Your task to perform on an android device: Do I have any events today? Image 0: 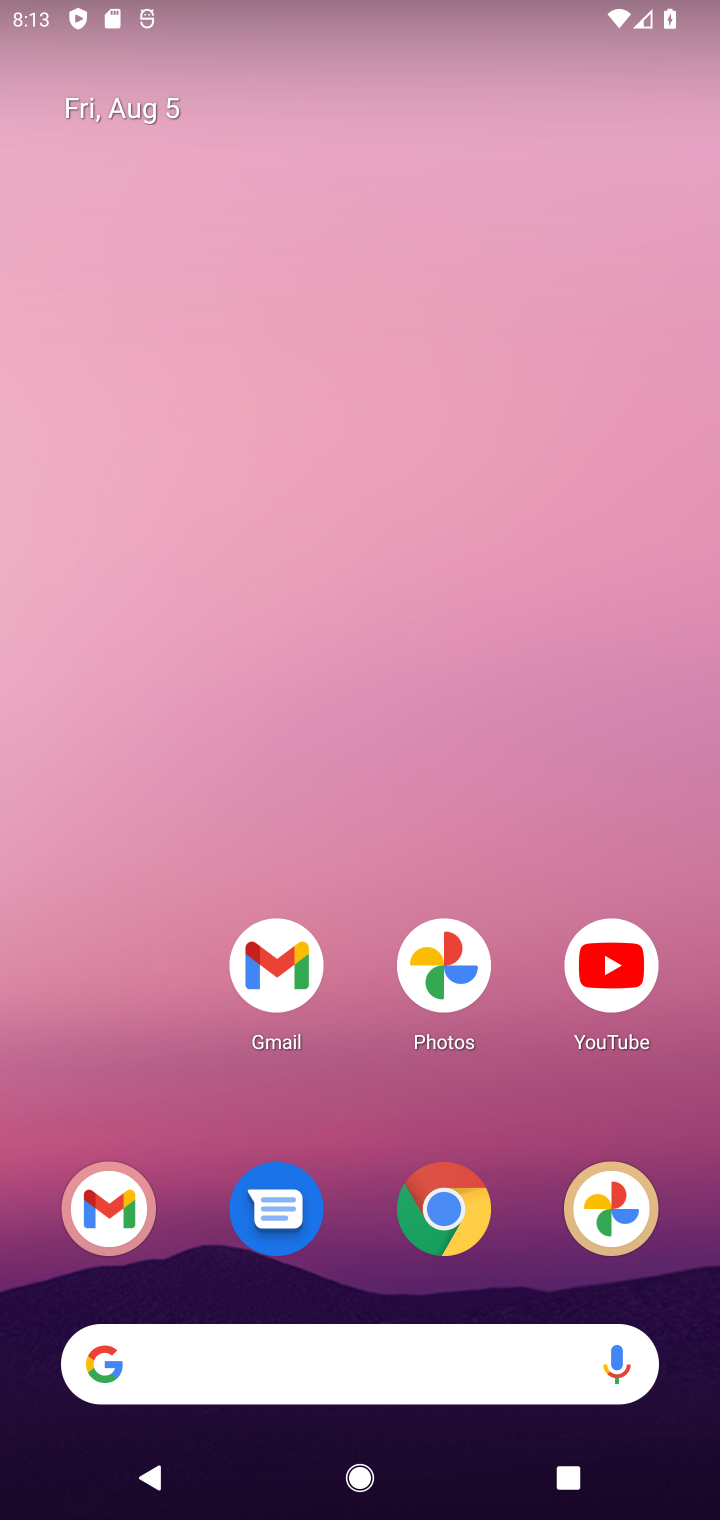
Step 0: drag from (297, 1247) to (587, 270)
Your task to perform on an android device: Do I have any events today? Image 1: 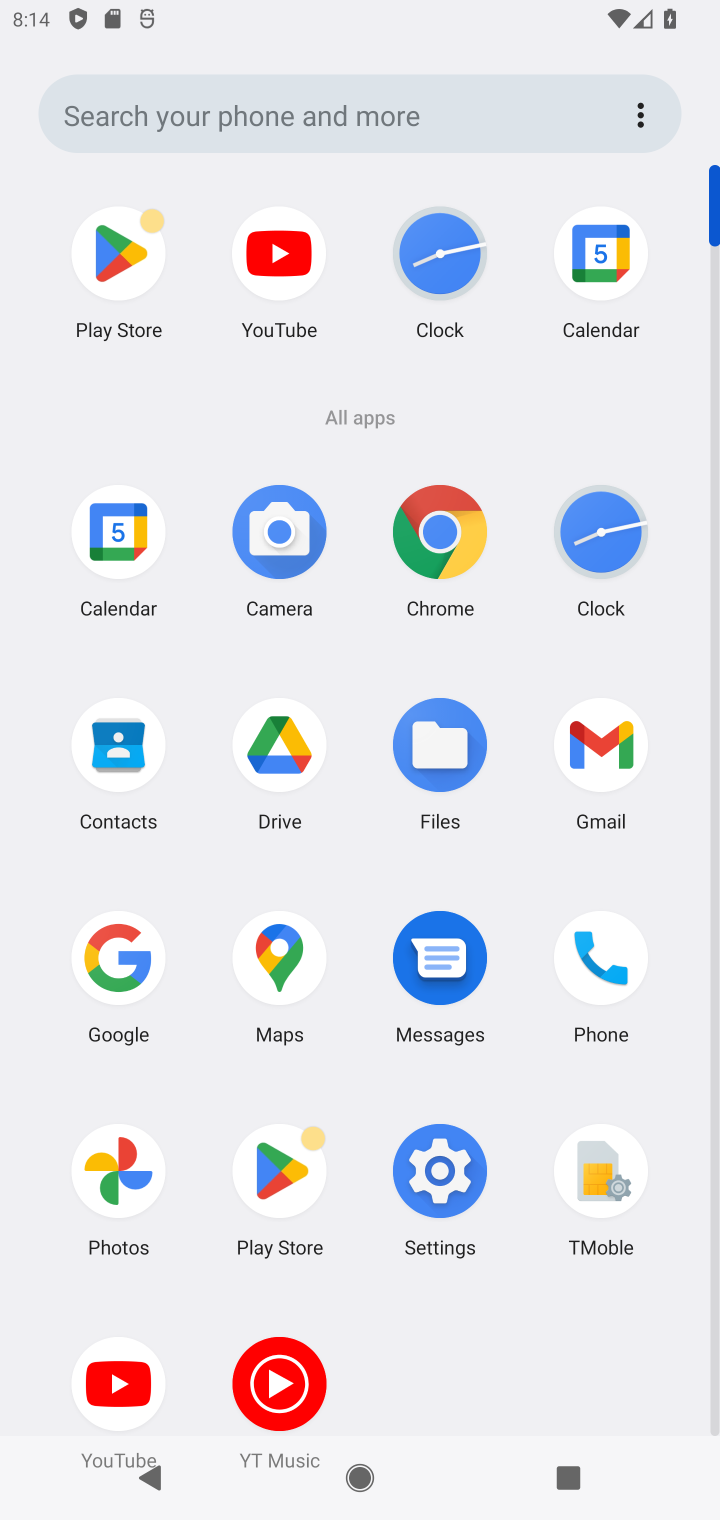
Step 1: click (611, 247)
Your task to perform on an android device: Do I have any events today? Image 2: 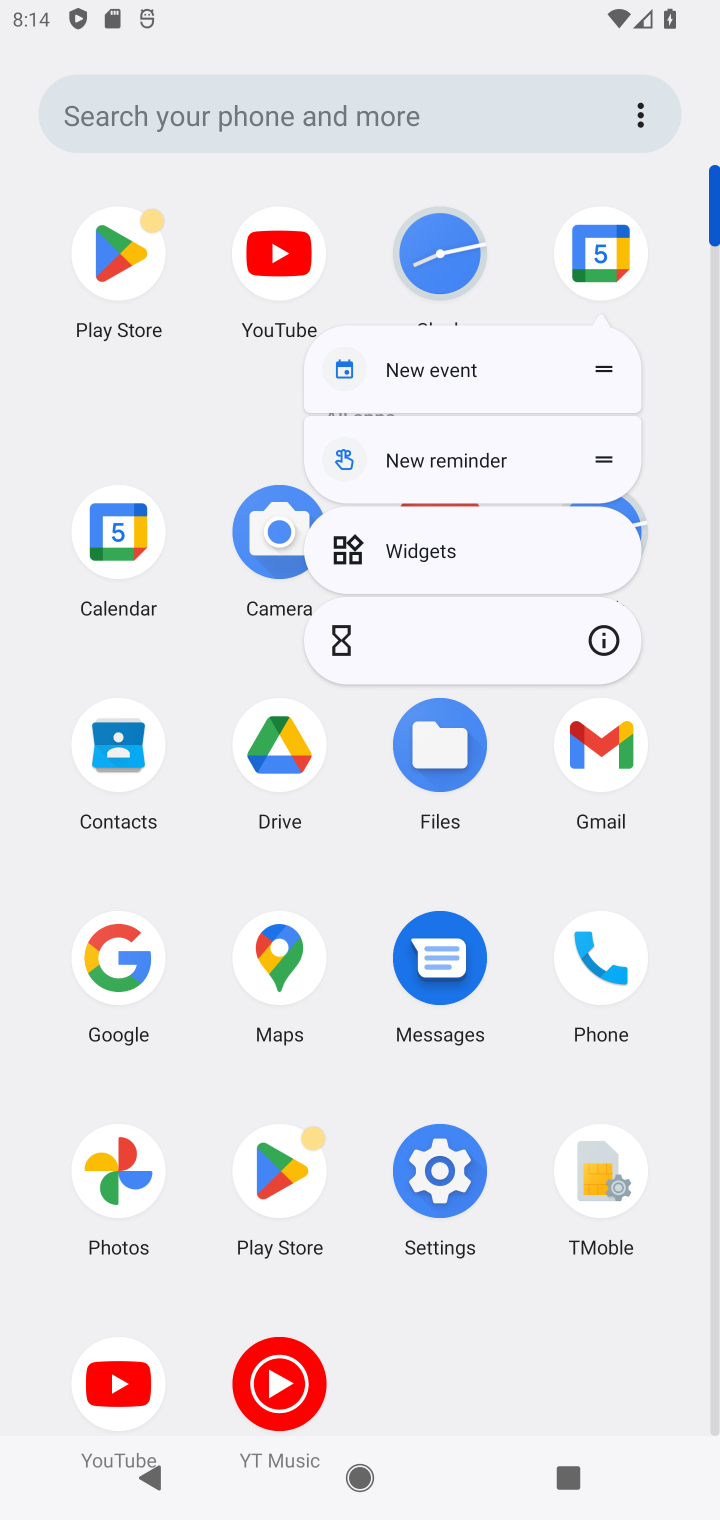
Step 2: click (611, 247)
Your task to perform on an android device: Do I have any events today? Image 3: 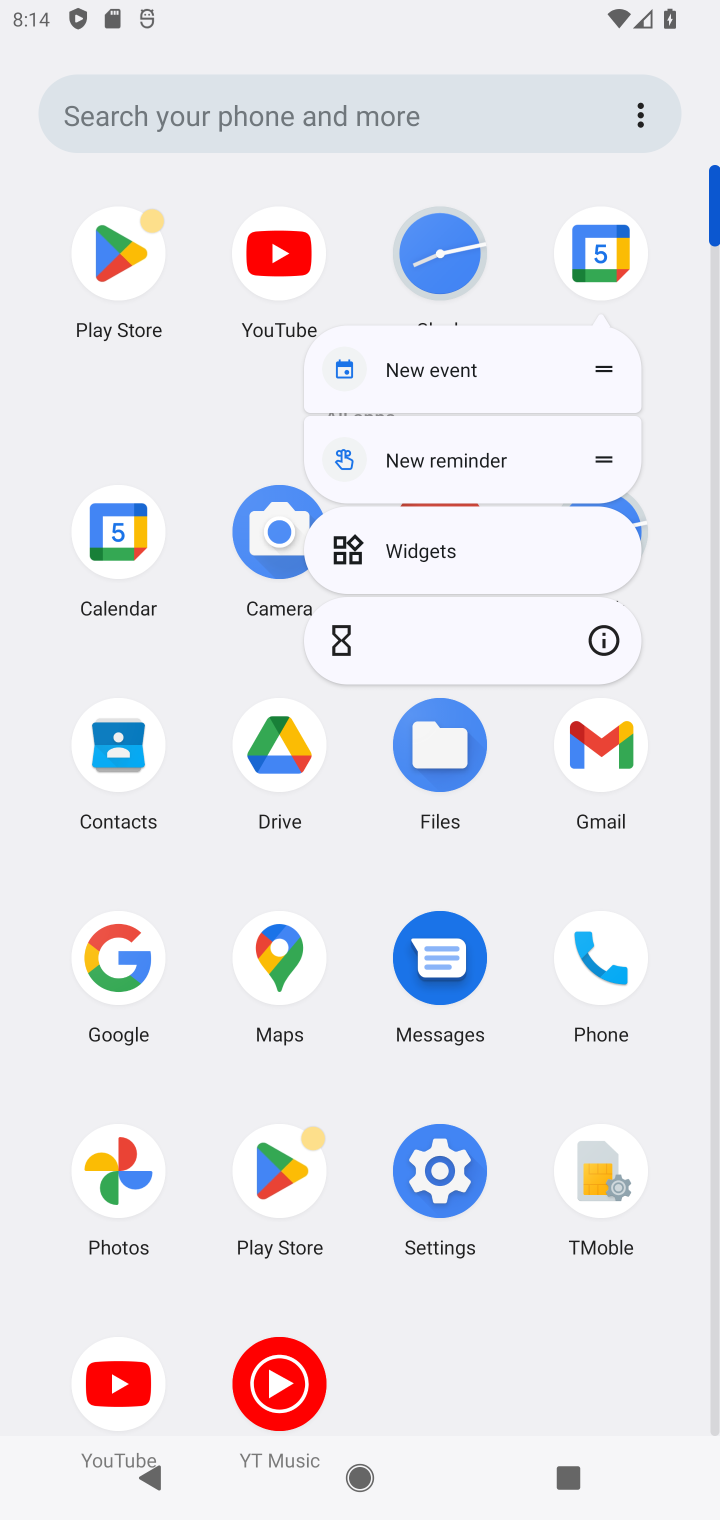
Step 3: click (594, 258)
Your task to perform on an android device: Do I have any events today? Image 4: 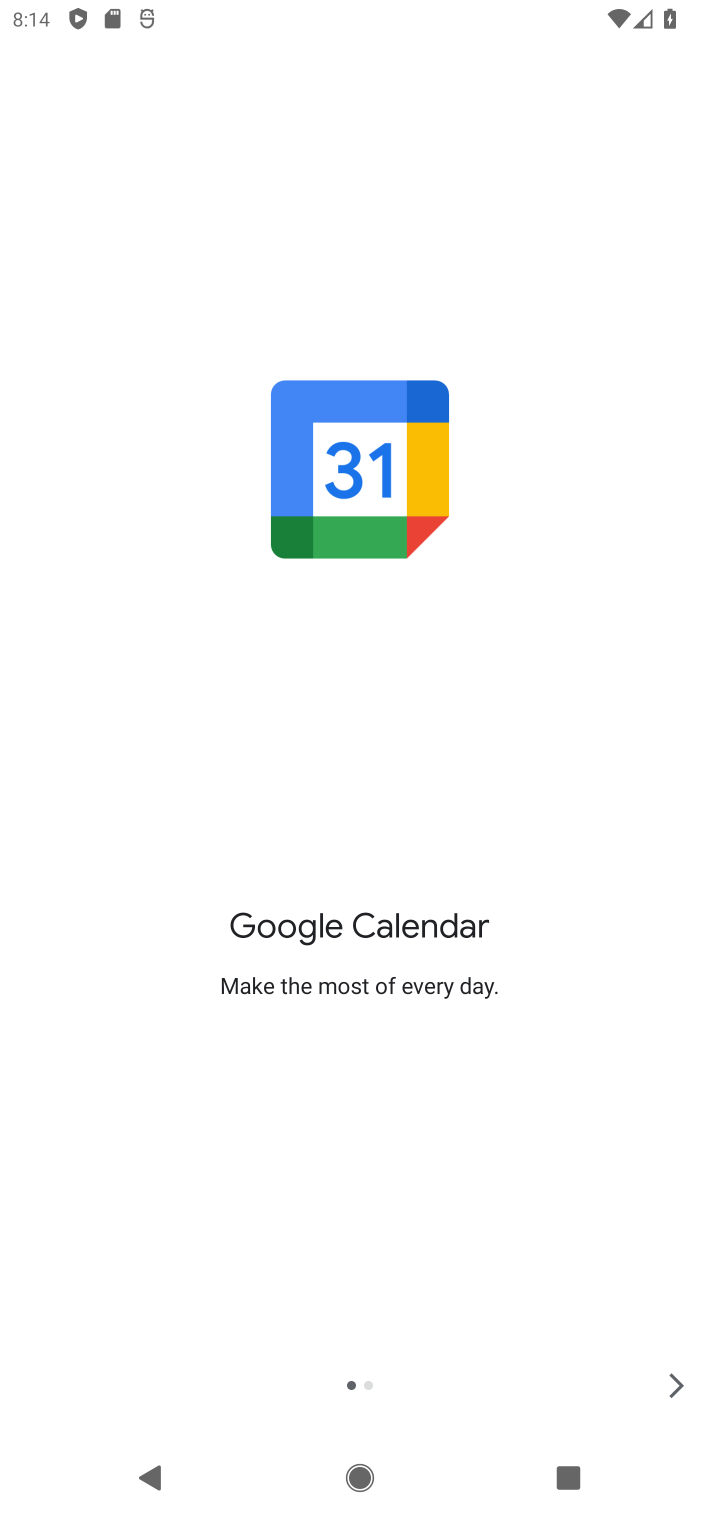
Step 4: click (678, 1388)
Your task to perform on an android device: Do I have any events today? Image 5: 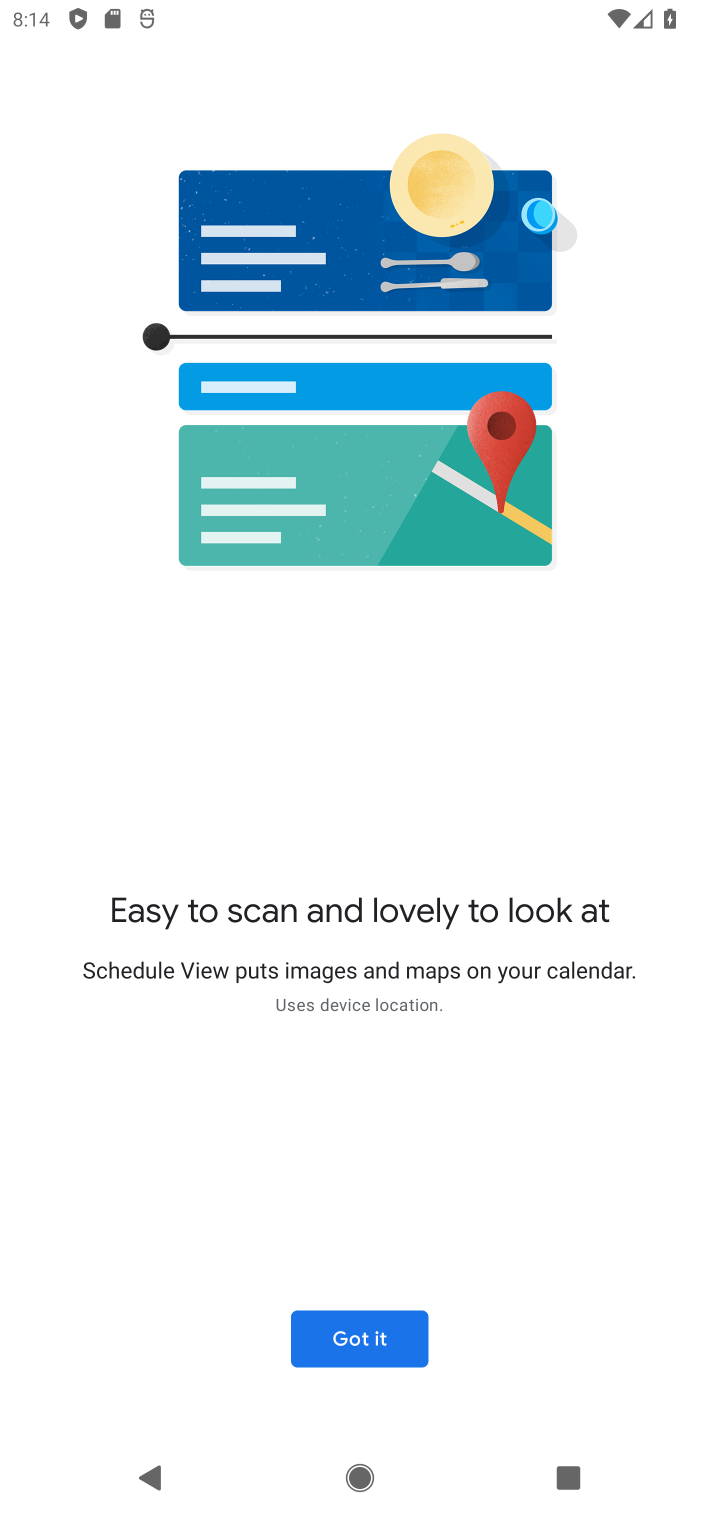
Step 5: click (678, 1388)
Your task to perform on an android device: Do I have any events today? Image 6: 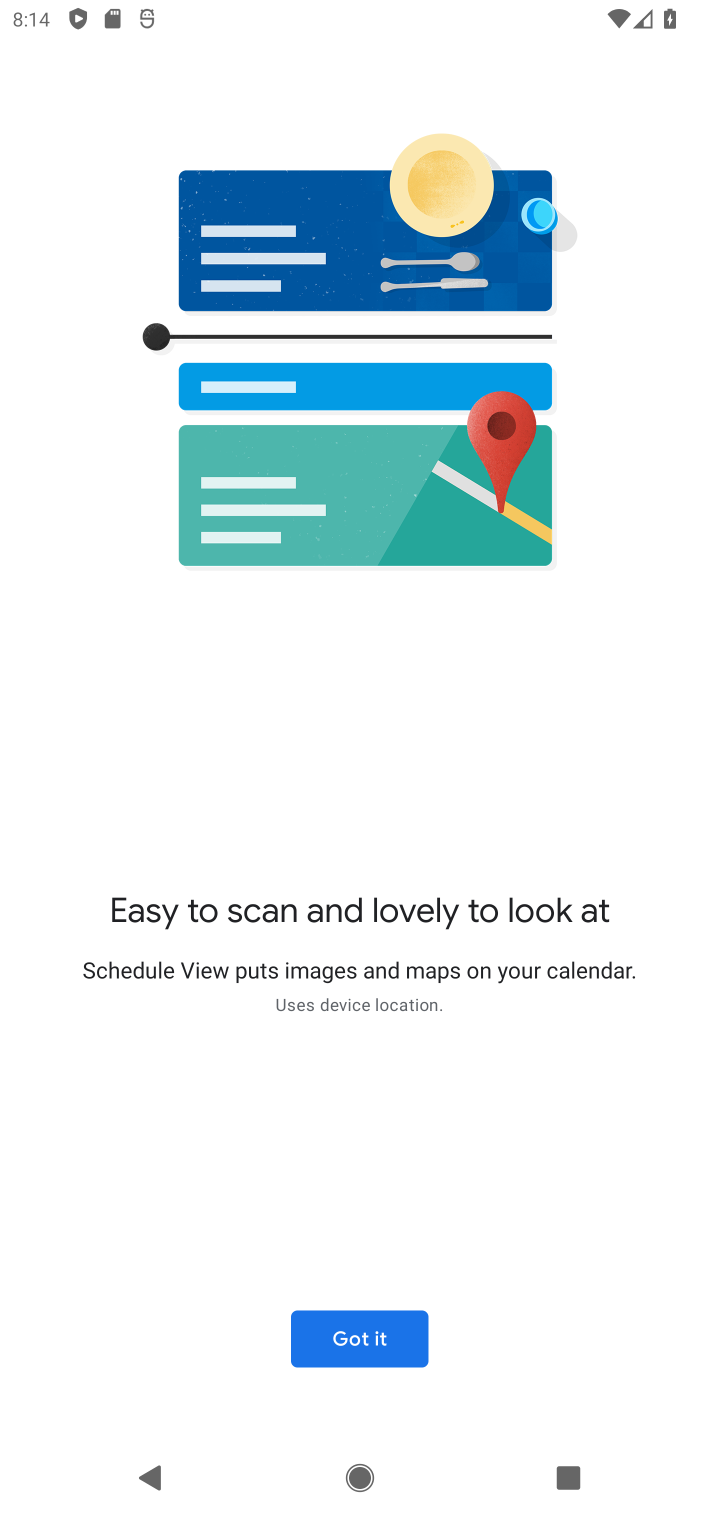
Step 6: click (402, 1341)
Your task to perform on an android device: Do I have any events today? Image 7: 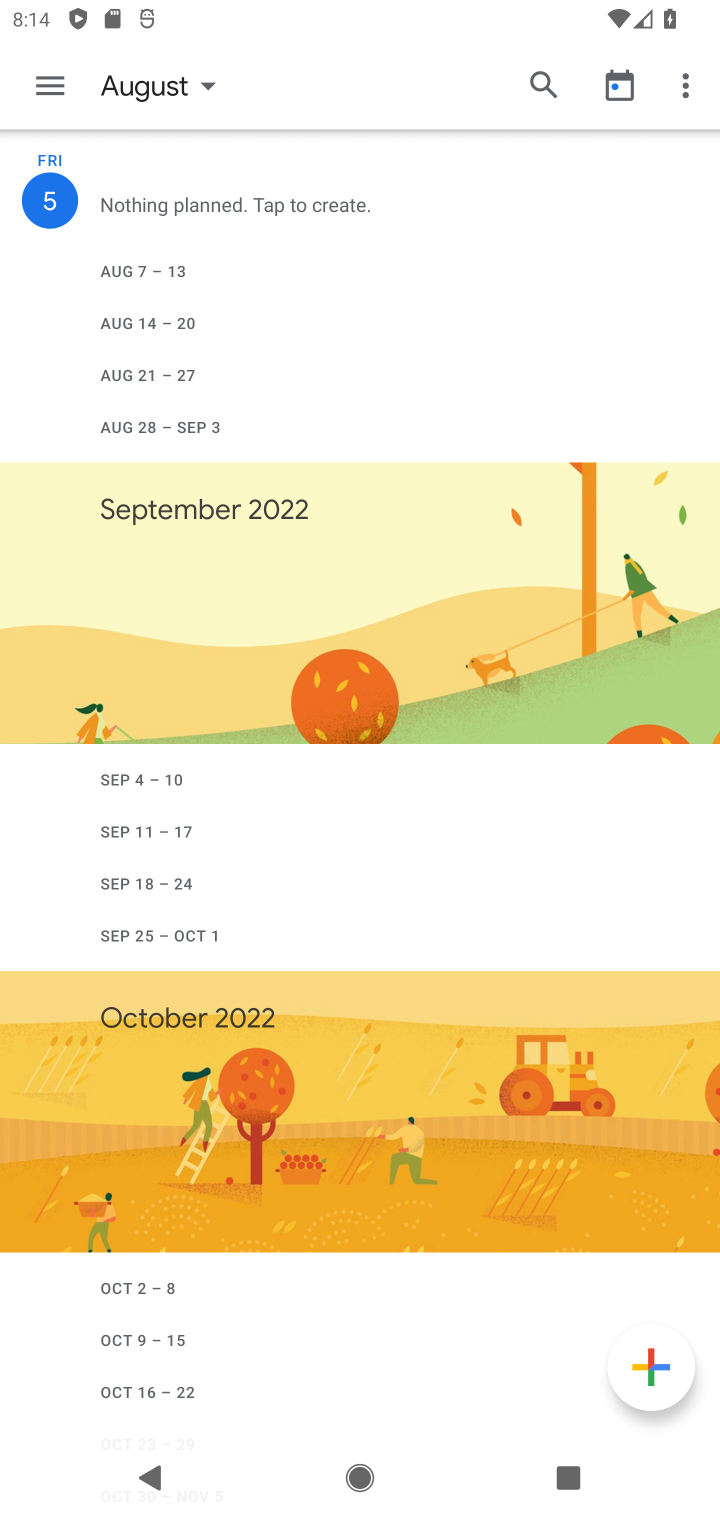
Step 7: click (140, 98)
Your task to perform on an android device: Do I have any events today? Image 8: 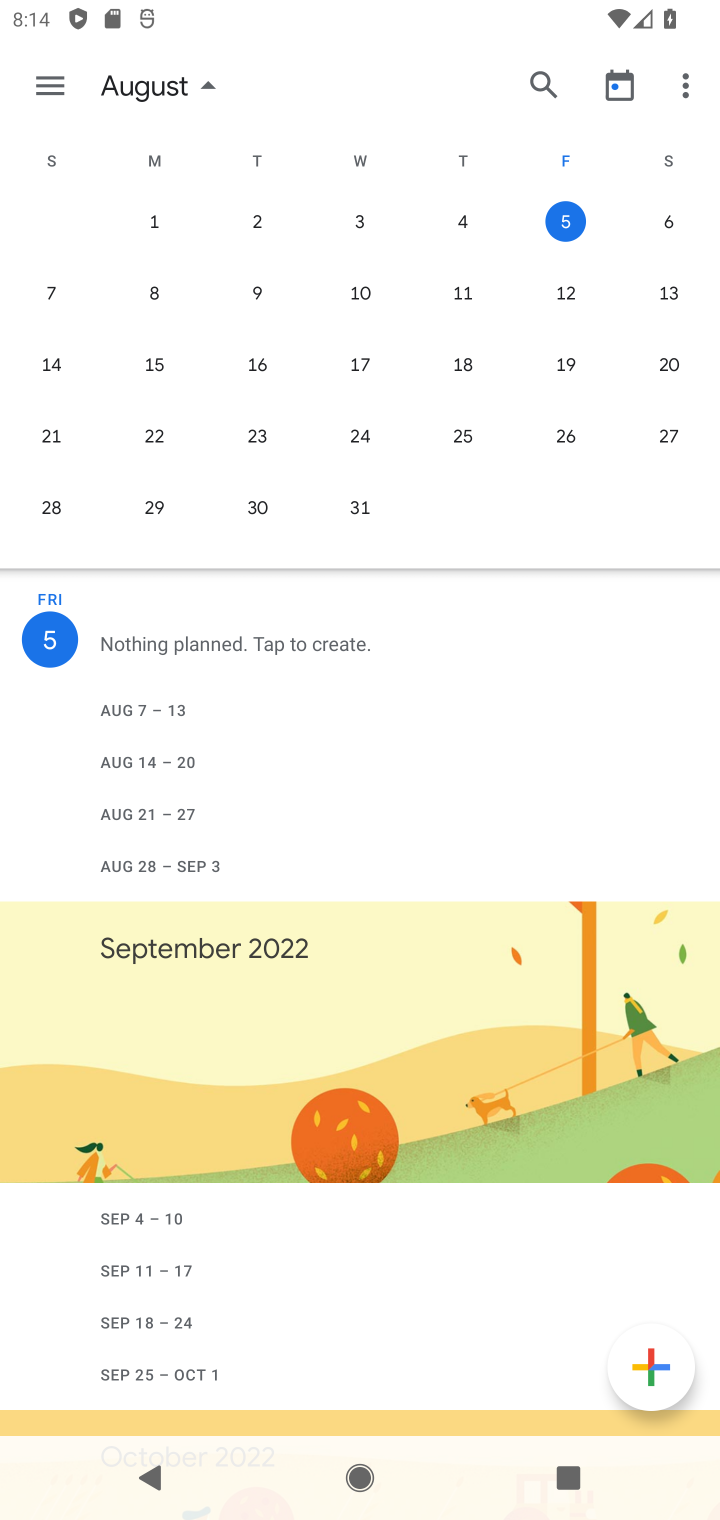
Step 8: click (559, 216)
Your task to perform on an android device: Do I have any events today? Image 9: 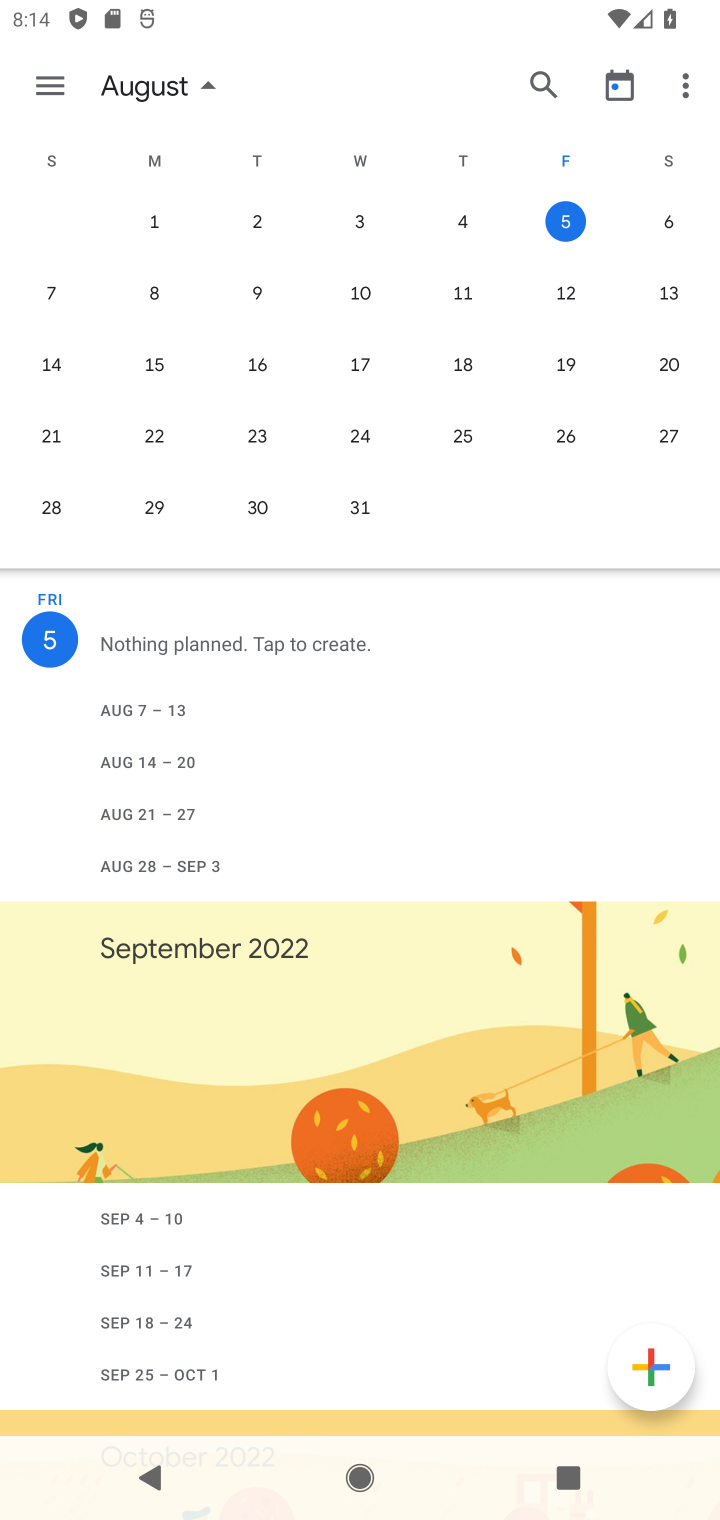
Step 9: click (48, 86)
Your task to perform on an android device: Do I have any events today? Image 10: 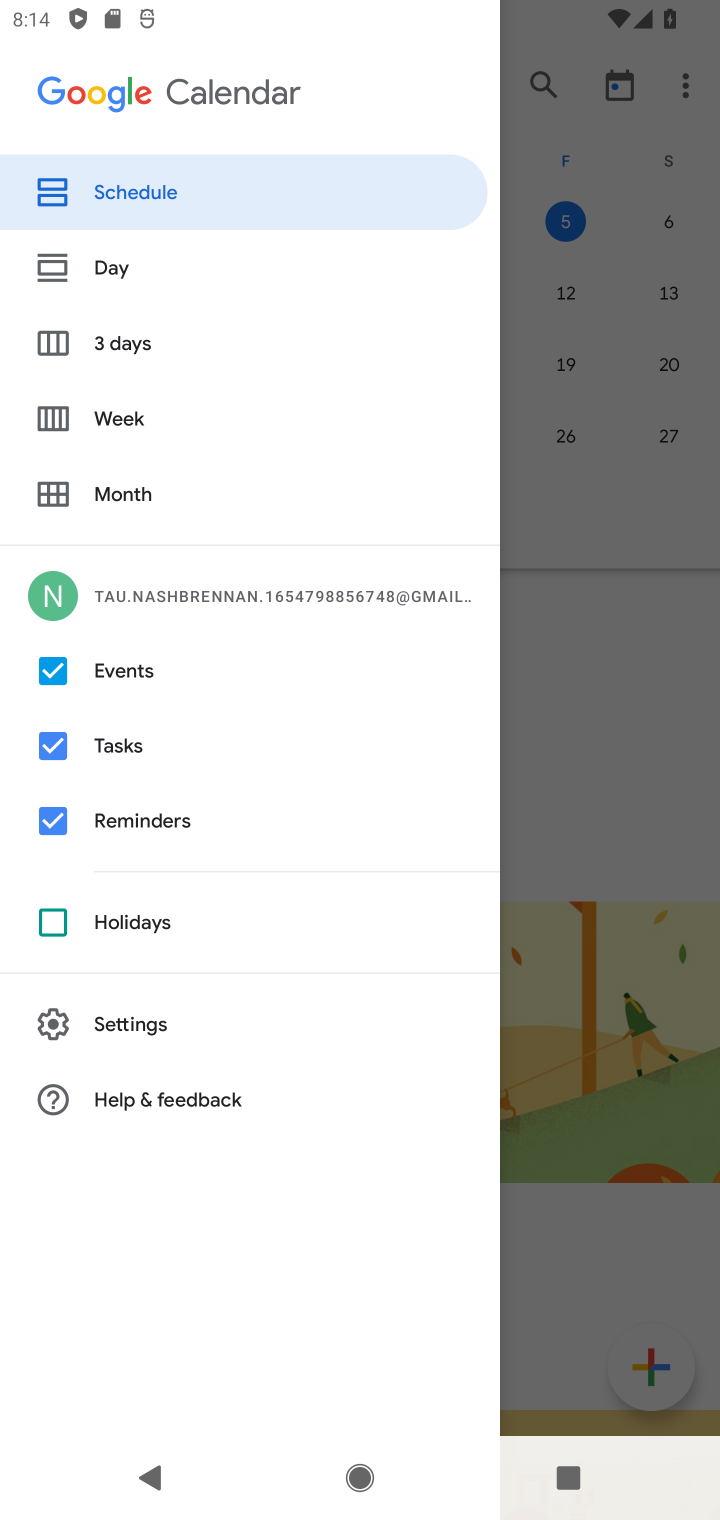
Step 10: click (135, 191)
Your task to perform on an android device: Do I have any events today? Image 11: 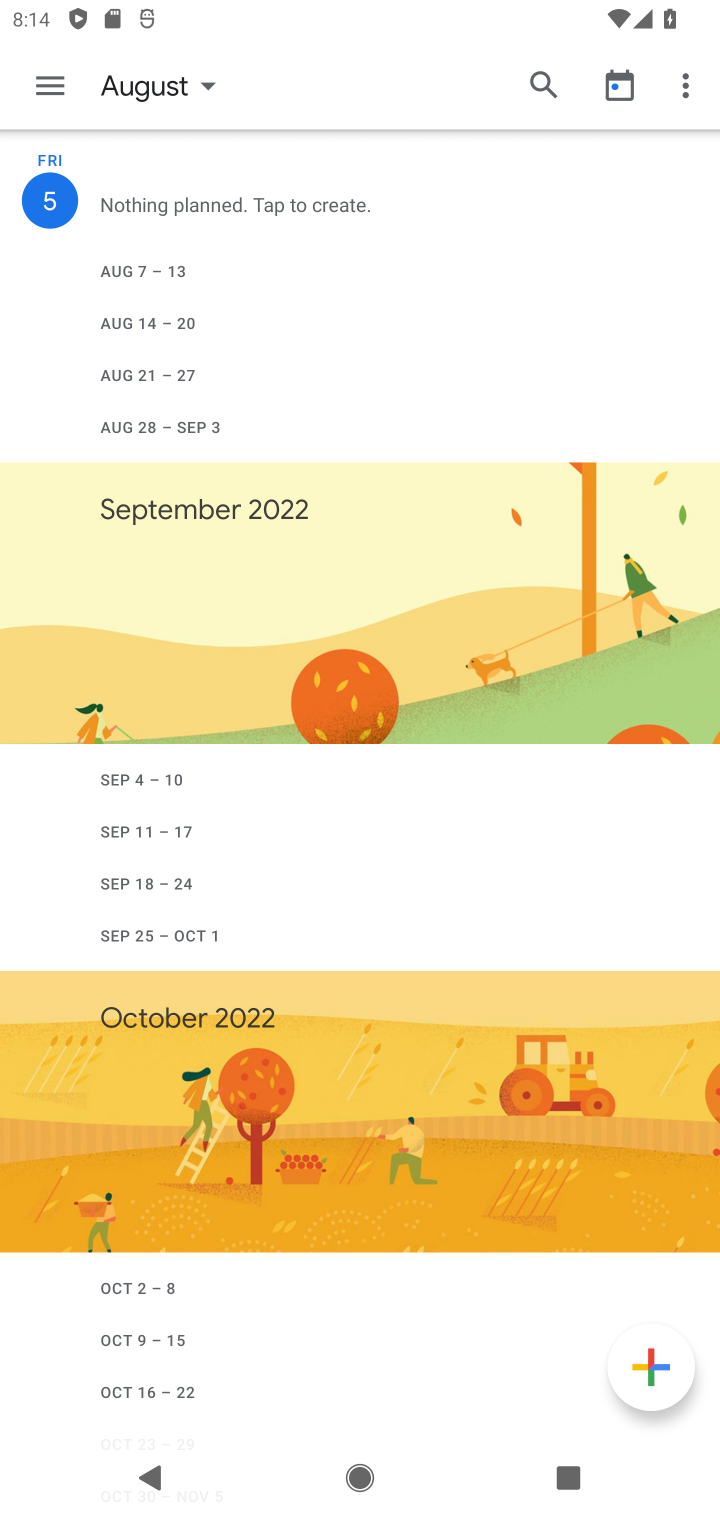
Step 11: task complete